Your task to perform on an android device: find snoozed emails in the gmail app Image 0: 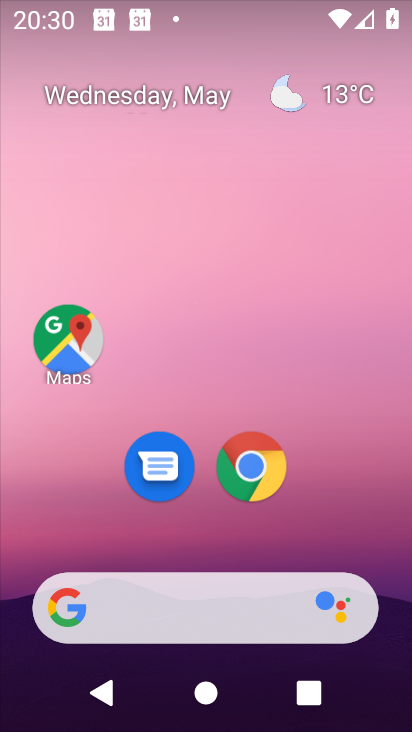
Step 0: drag from (207, 542) to (205, 88)
Your task to perform on an android device: find snoozed emails in the gmail app Image 1: 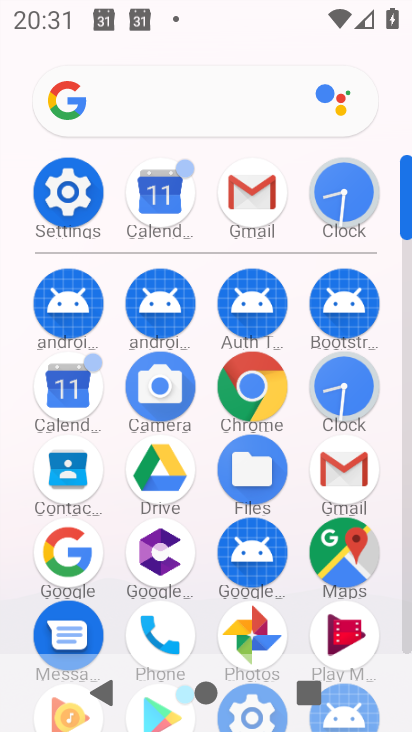
Step 1: click (342, 456)
Your task to perform on an android device: find snoozed emails in the gmail app Image 2: 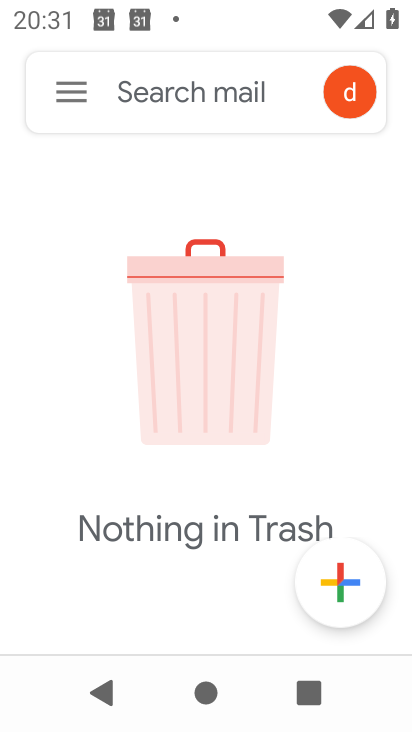
Step 2: click (72, 106)
Your task to perform on an android device: find snoozed emails in the gmail app Image 3: 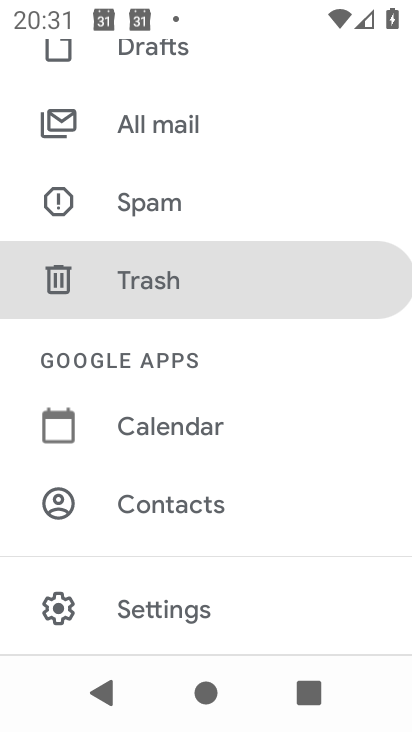
Step 3: drag from (218, 101) to (228, 649)
Your task to perform on an android device: find snoozed emails in the gmail app Image 4: 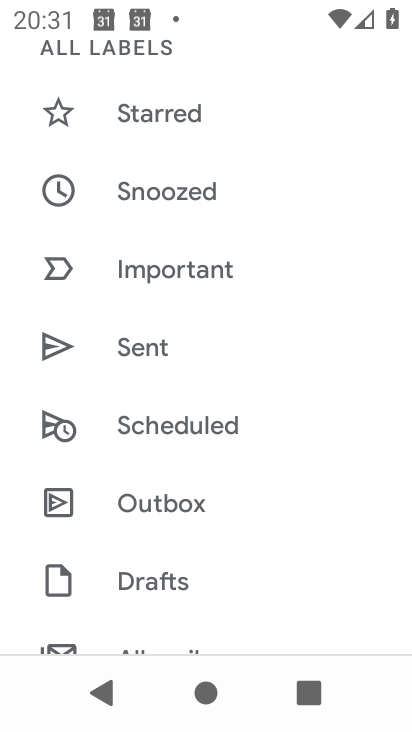
Step 4: click (227, 188)
Your task to perform on an android device: find snoozed emails in the gmail app Image 5: 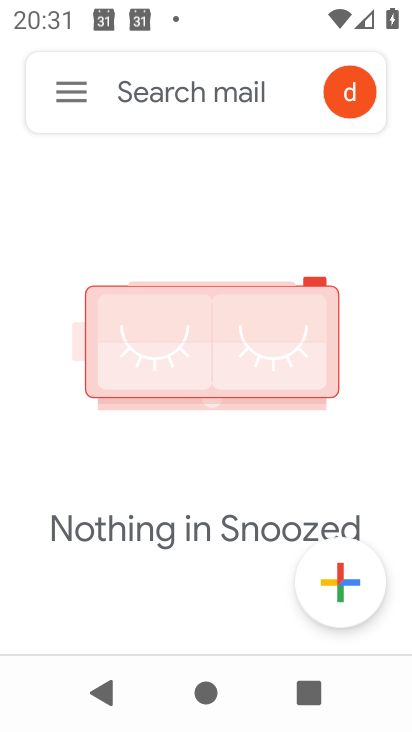
Step 5: task complete